Your task to perform on an android device: Add "bose soundlink mini" to the cart on walmart, then select checkout. Image 0: 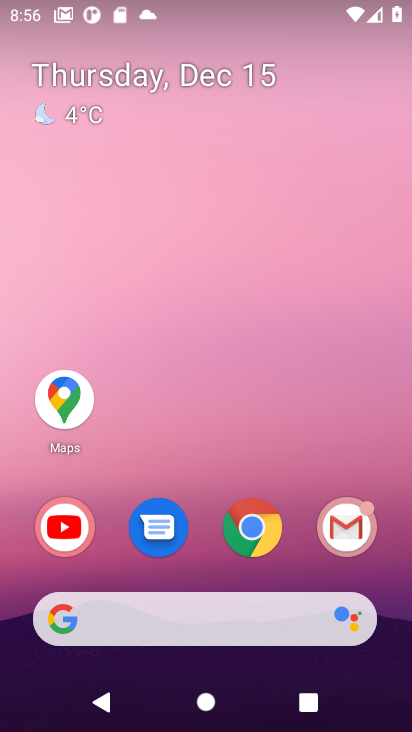
Step 0: click (257, 548)
Your task to perform on an android device: Add "bose soundlink mini" to the cart on walmart, then select checkout. Image 1: 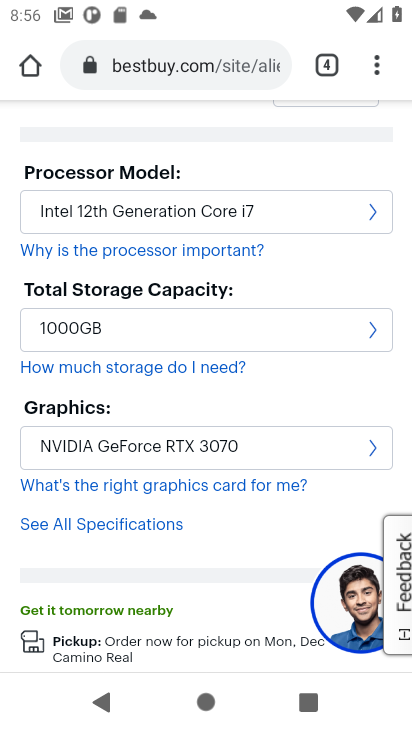
Step 1: click (202, 55)
Your task to perform on an android device: Add "bose soundlink mini" to the cart on walmart, then select checkout. Image 2: 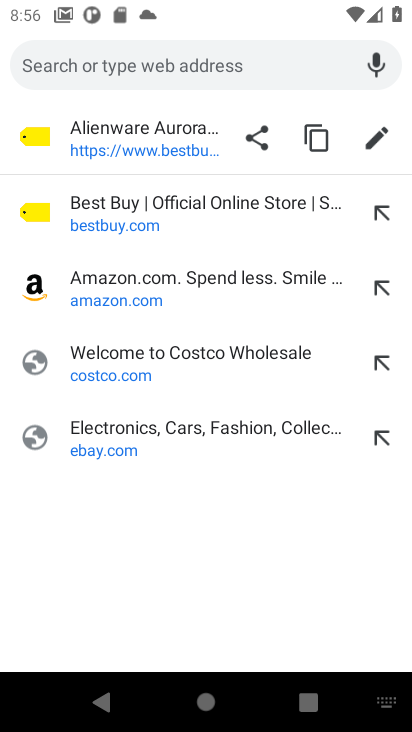
Step 2: type "walmart"
Your task to perform on an android device: Add "bose soundlink mini" to the cart on walmart, then select checkout. Image 3: 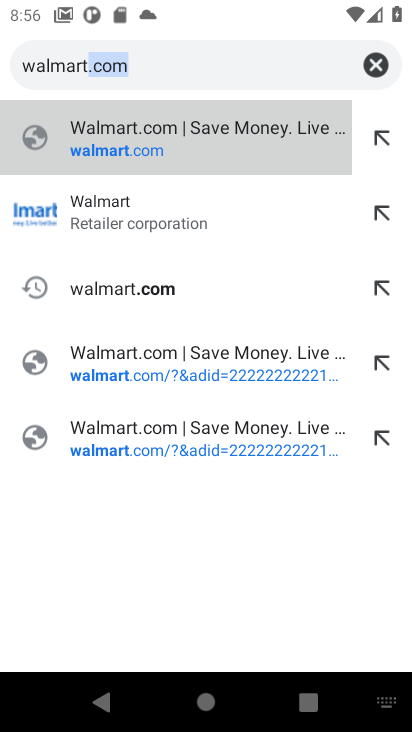
Step 3: click (224, 144)
Your task to perform on an android device: Add "bose soundlink mini" to the cart on walmart, then select checkout. Image 4: 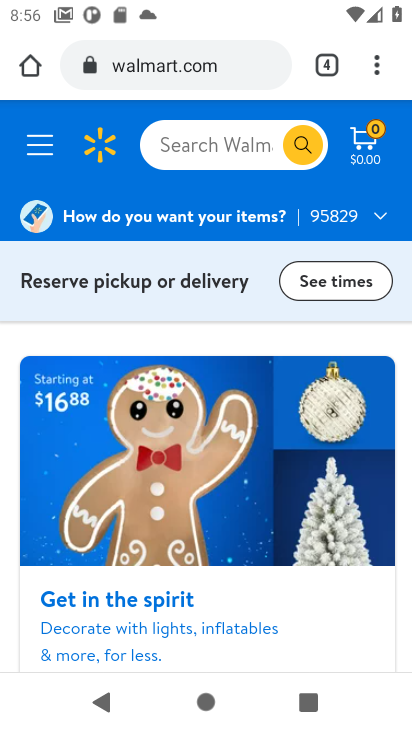
Step 4: click (224, 144)
Your task to perform on an android device: Add "bose soundlink mini" to the cart on walmart, then select checkout. Image 5: 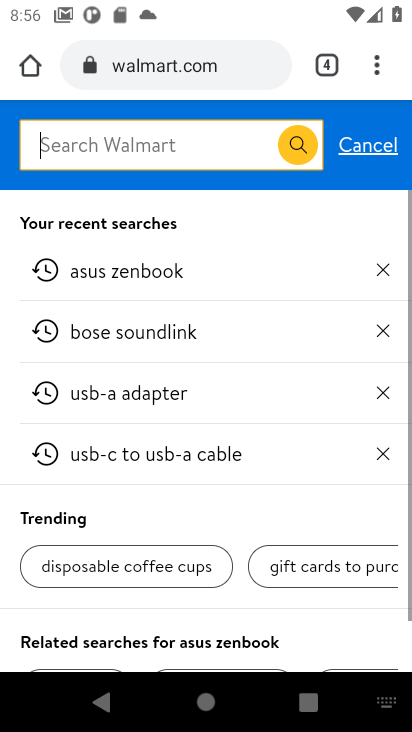
Step 5: type "bose sounlink mini"
Your task to perform on an android device: Add "bose soundlink mini" to the cart on walmart, then select checkout. Image 6: 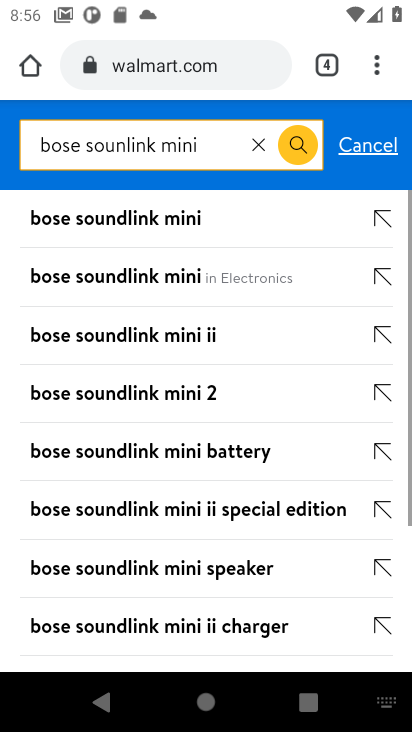
Step 6: click (220, 216)
Your task to perform on an android device: Add "bose soundlink mini" to the cart on walmart, then select checkout. Image 7: 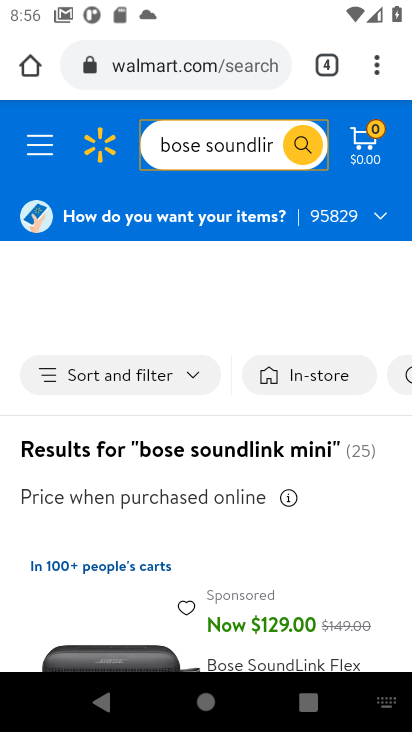
Step 7: drag from (179, 616) to (163, 220)
Your task to perform on an android device: Add "bose soundlink mini" to the cart on walmart, then select checkout. Image 8: 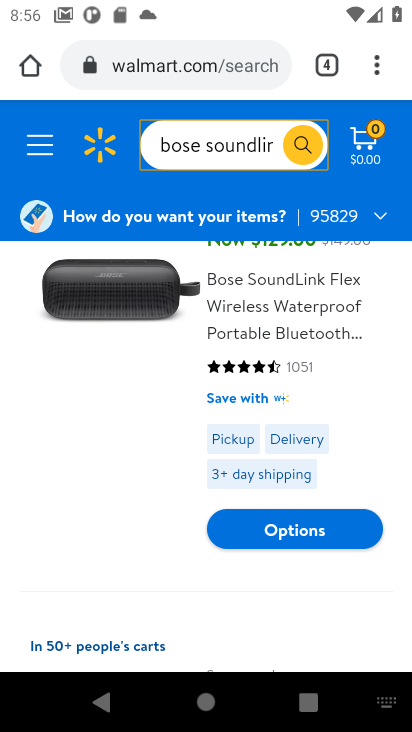
Step 8: click (286, 539)
Your task to perform on an android device: Add "bose soundlink mini" to the cart on walmart, then select checkout. Image 9: 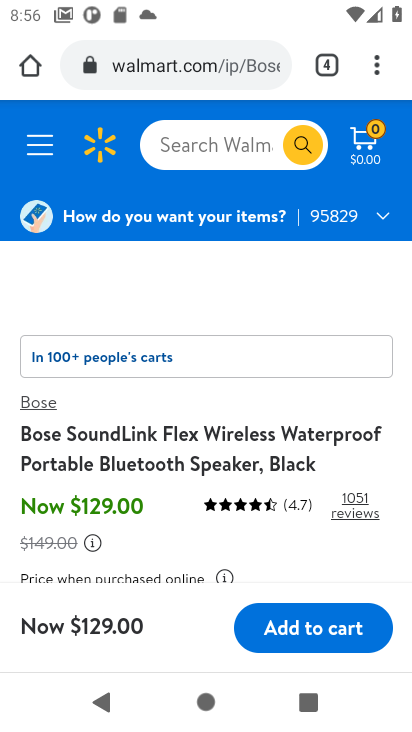
Step 9: click (314, 619)
Your task to perform on an android device: Add "bose soundlink mini" to the cart on walmart, then select checkout. Image 10: 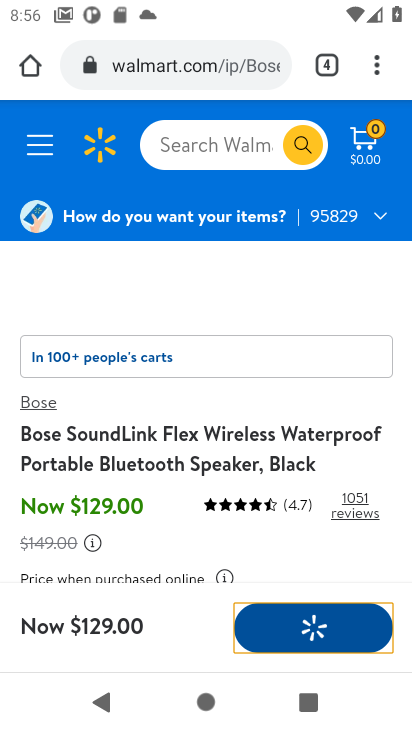
Step 10: task complete